Your task to perform on an android device: Go to sound settings Image 0: 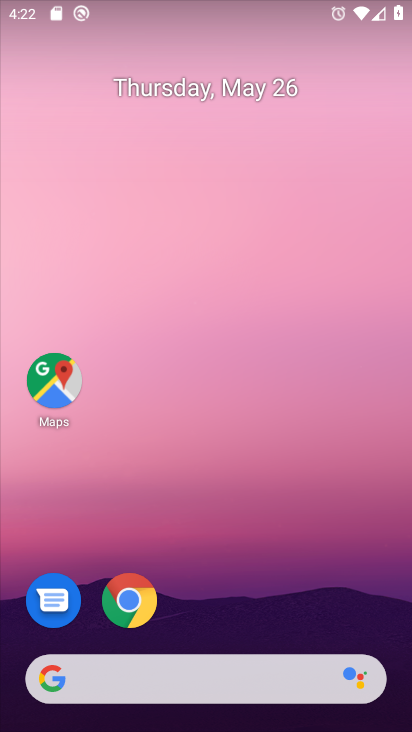
Step 0: drag from (238, 613) to (262, 12)
Your task to perform on an android device: Go to sound settings Image 1: 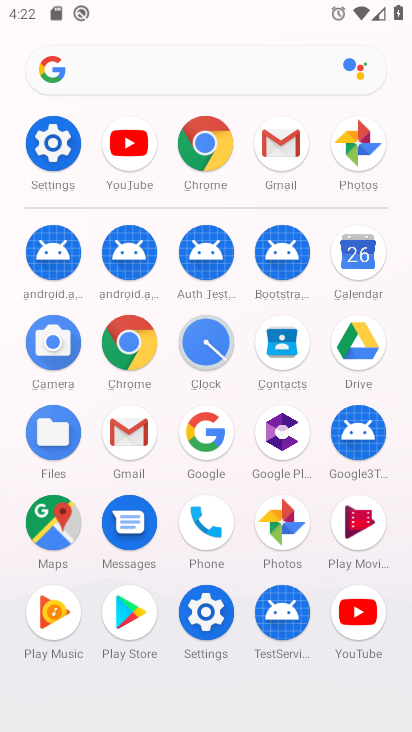
Step 1: click (203, 626)
Your task to perform on an android device: Go to sound settings Image 2: 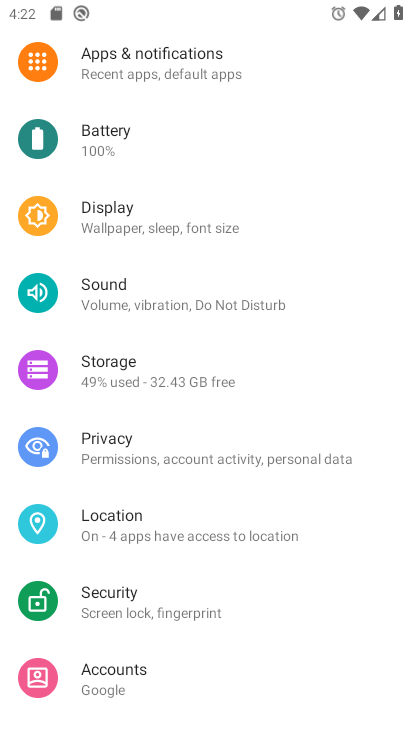
Step 2: click (139, 309)
Your task to perform on an android device: Go to sound settings Image 3: 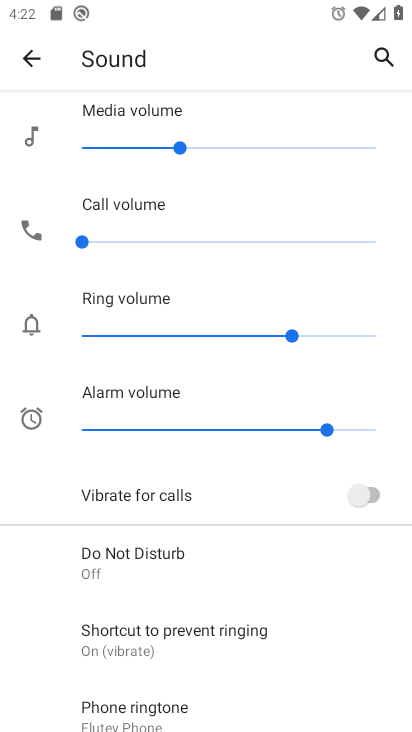
Step 3: task complete